Your task to perform on an android device: turn on notifications settings in the gmail app Image 0: 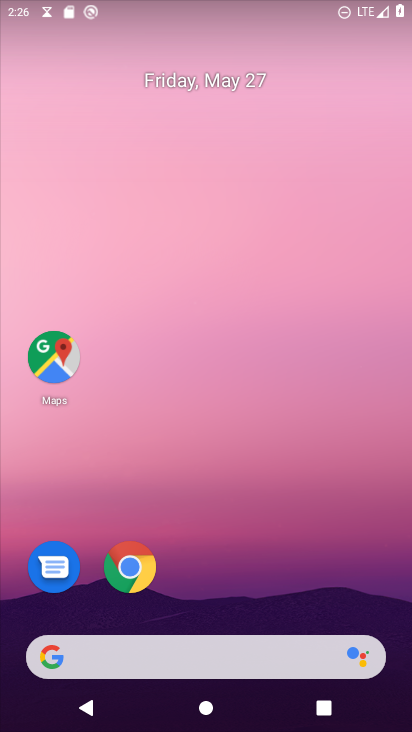
Step 0: drag from (257, 595) to (205, 121)
Your task to perform on an android device: turn on notifications settings in the gmail app Image 1: 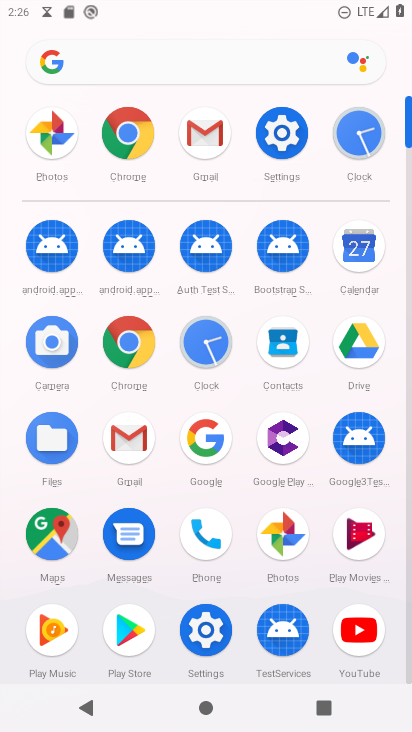
Step 1: click (209, 146)
Your task to perform on an android device: turn on notifications settings in the gmail app Image 2: 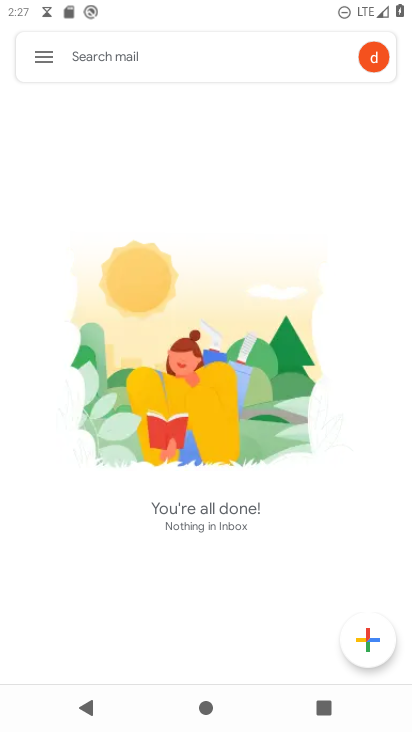
Step 2: click (47, 66)
Your task to perform on an android device: turn on notifications settings in the gmail app Image 3: 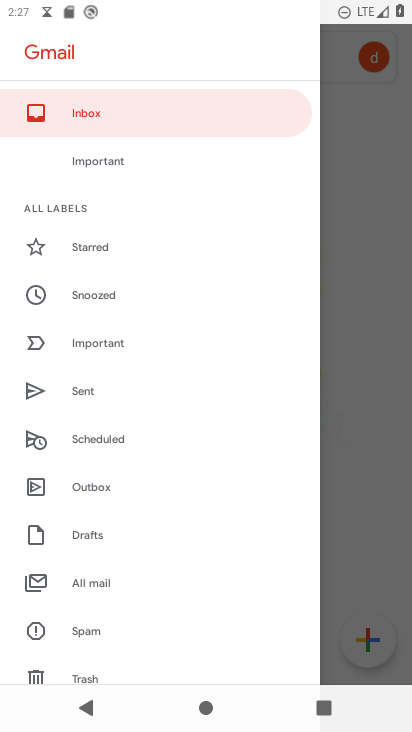
Step 3: drag from (118, 664) to (103, 182)
Your task to perform on an android device: turn on notifications settings in the gmail app Image 4: 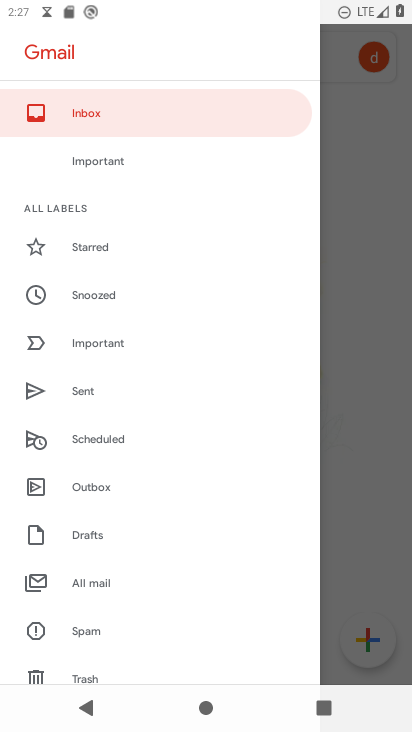
Step 4: drag from (155, 637) to (114, 230)
Your task to perform on an android device: turn on notifications settings in the gmail app Image 5: 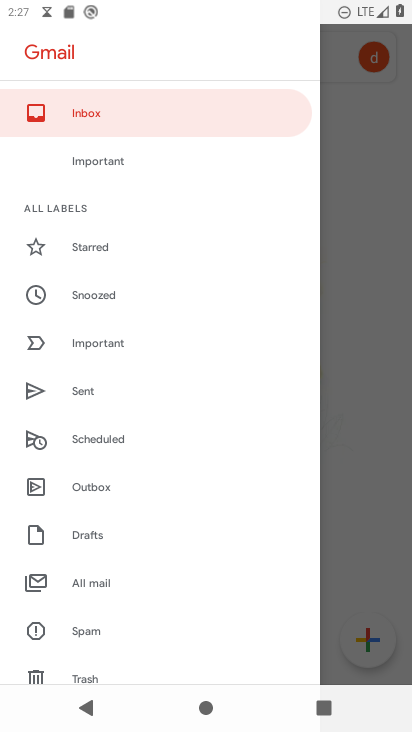
Step 5: drag from (85, 650) to (89, 146)
Your task to perform on an android device: turn on notifications settings in the gmail app Image 6: 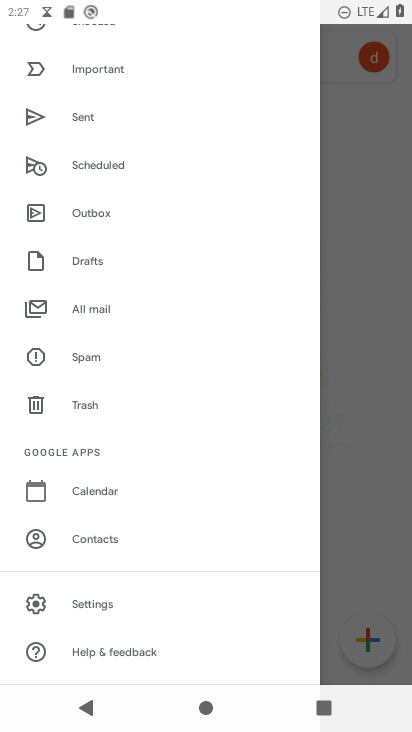
Step 6: click (89, 613)
Your task to perform on an android device: turn on notifications settings in the gmail app Image 7: 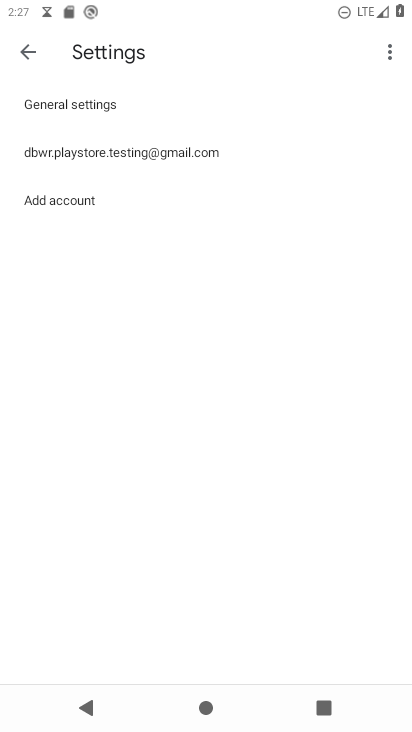
Step 7: click (178, 160)
Your task to perform on an android device: turn on notifications settings in the gmail app Image 8: 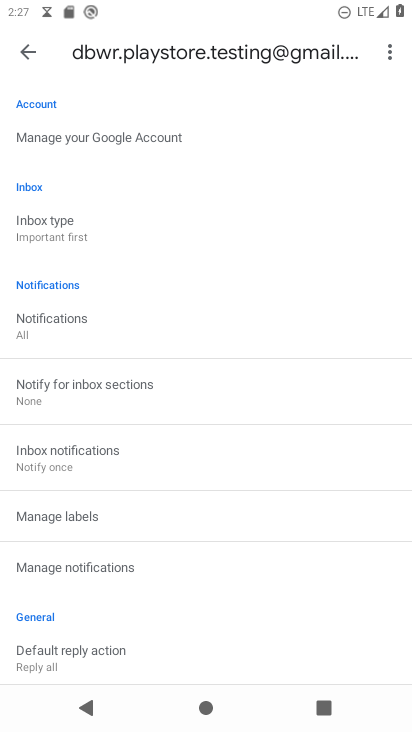
Step 8: click (180, 567)
Your task to perform on an android device: turn on notifications settings in the gmail app Image 9: 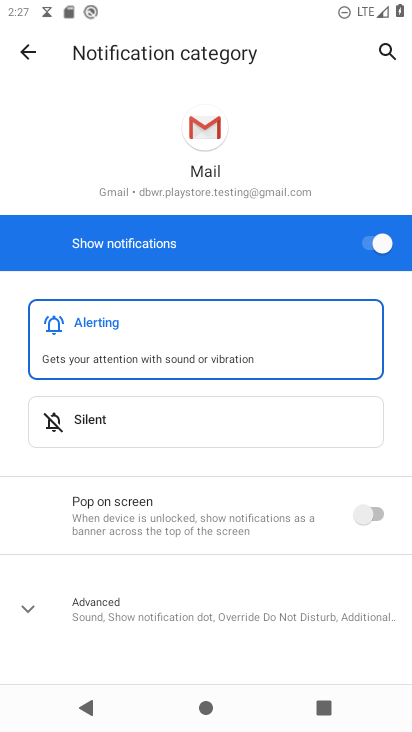
Step 9: click (364, 505)
Your task to perform on an android device: turn on notifications settings in the gmail app Image 10: 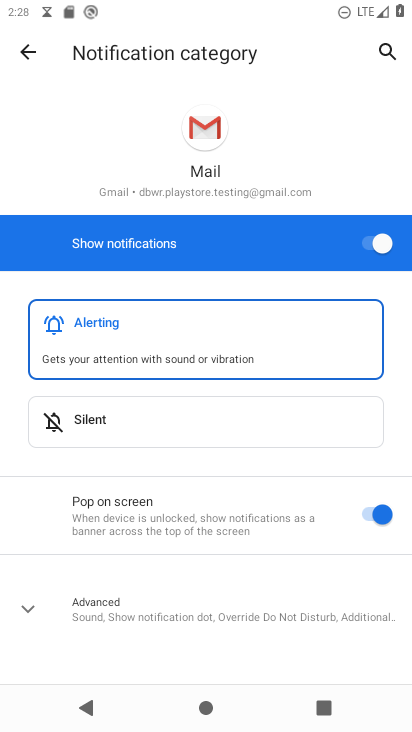
Step 10: task complete